Your task to perform on an android device: Go to network settings Image 0: 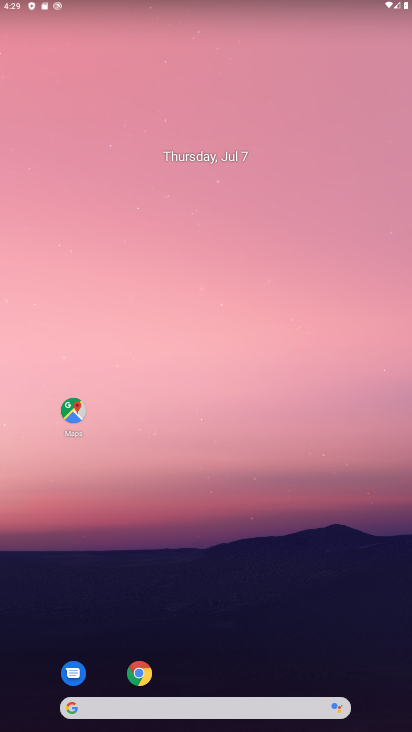
Step 0: drag from (221, 609) to (307, 180)
Your task to perform on an android device: Go to network settings Image 1: 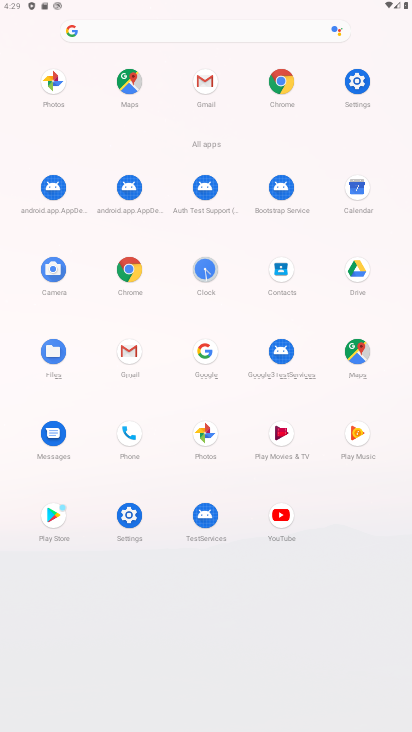
Step 1: click (131, 513)
Your task to perform on an android device: Go to network settings Image 2: 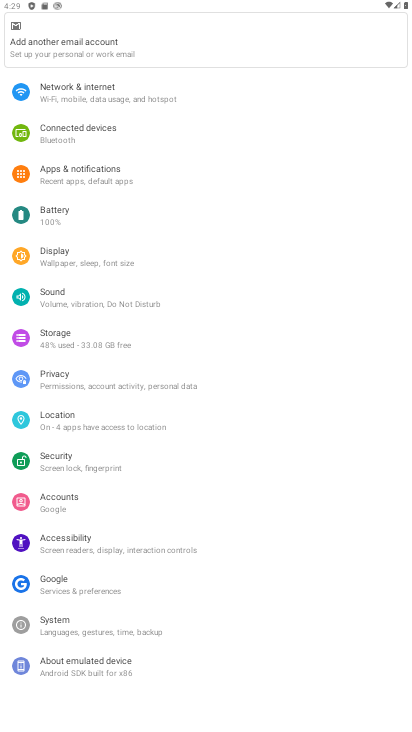
Step 2: click (172, 103)
Your task to perform on an android device: Go to network settings Image 3: 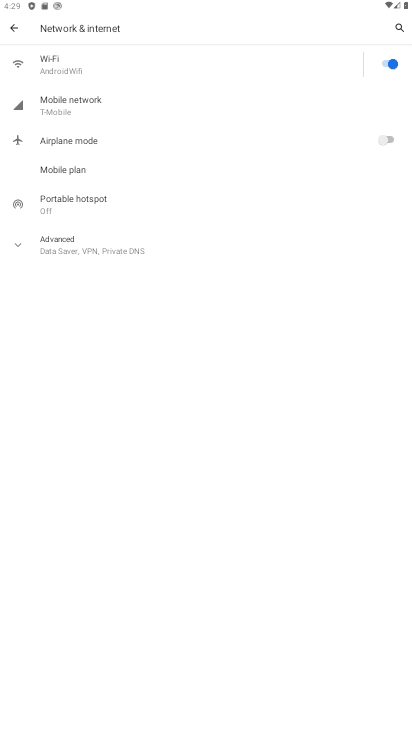
Step 3: click (135, 111)
Your task to perform on an android device: Go to network settings Image 4: 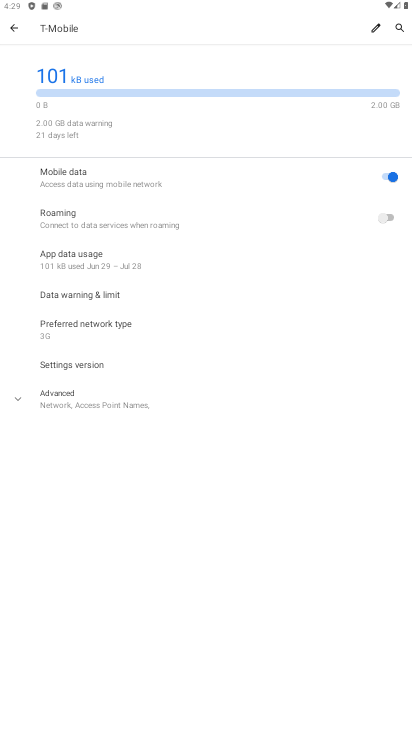
Step 4: task complete